Your task to perform on an android device: turn off picture-in-picture Image 0: 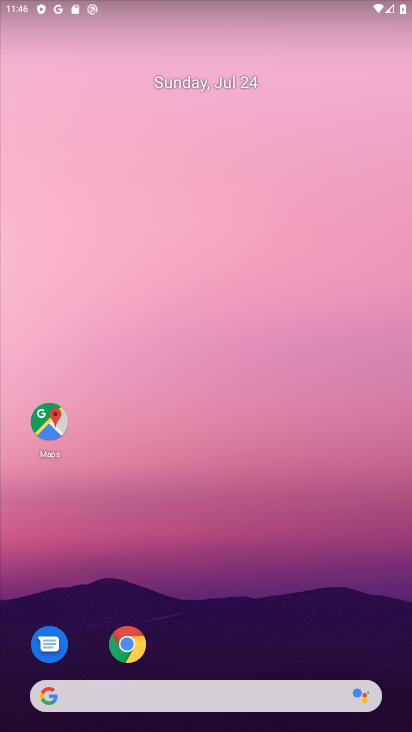
Step 0: click (123, 630)
Your task to perform on an android device: turn off picture-in-picture Image 1: 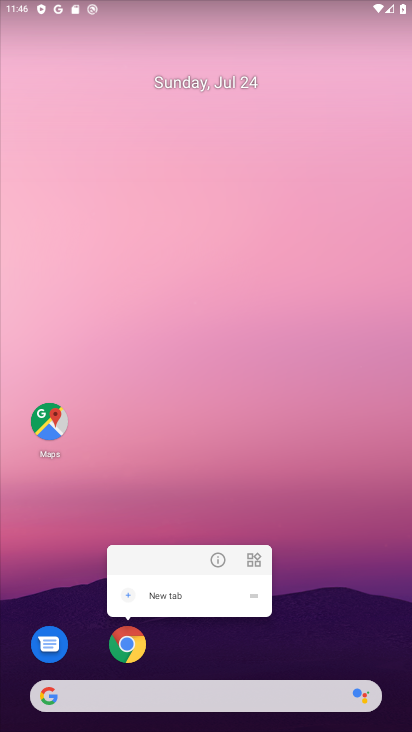
Step 1: click (130, 644)
Your task to perform on an android device: turn off picture-in-picture Image 2: 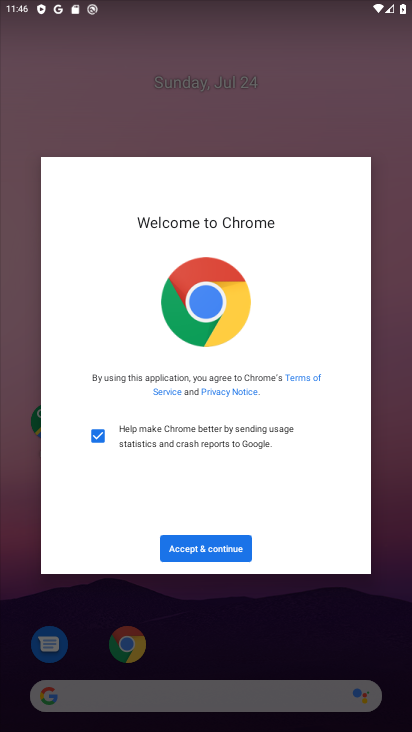
Step 2: click (131, 646)
Your task to perform on an android device: turn off picture-in-picture Image 3: 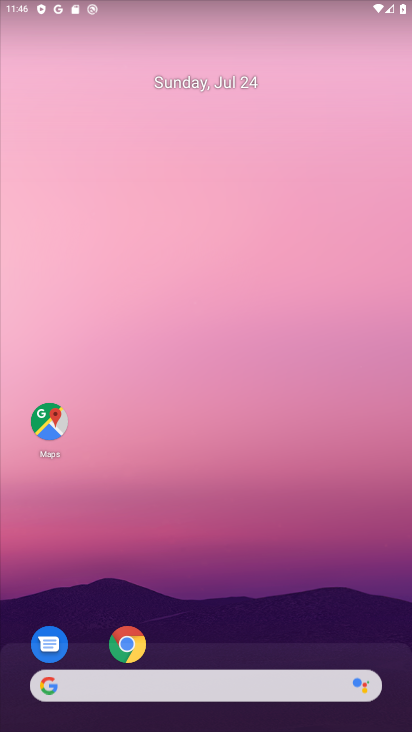
Step 3: click (131, 646)
Your task to perform on an android device: turn off picture-in-picture Image 4: 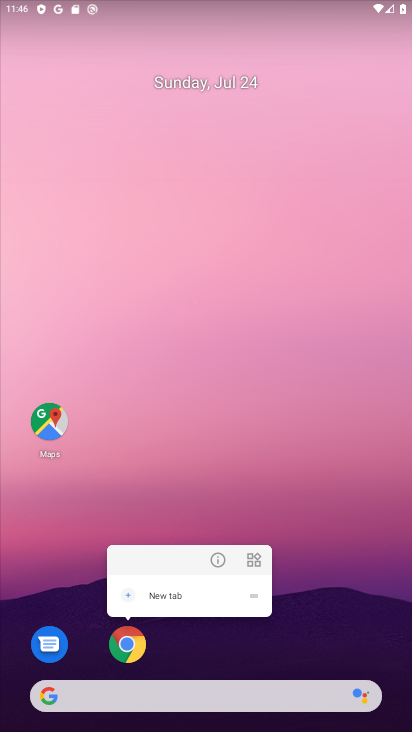
Step 4: click (213, 561)
Your task to perform on an android device: turn off picture-in-picture Image 5: 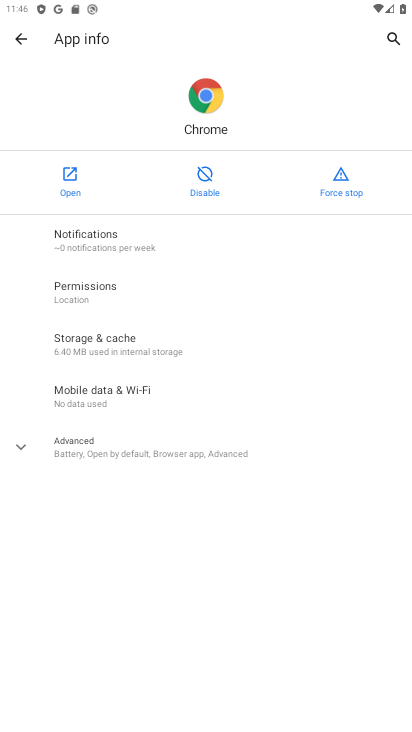
Step 5: click (77, 444)
Your task to perform on an android device: turn off picture-in-picture Image 6: 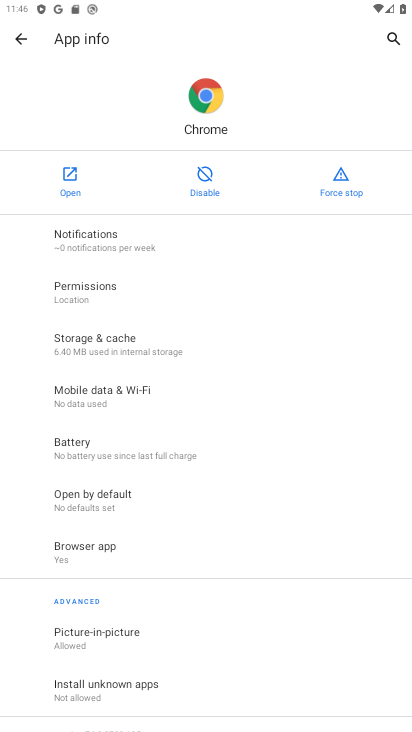
Step 6: click (82, 646)
Your task to perform on an android device: turn off picture-in-picture Image 7: 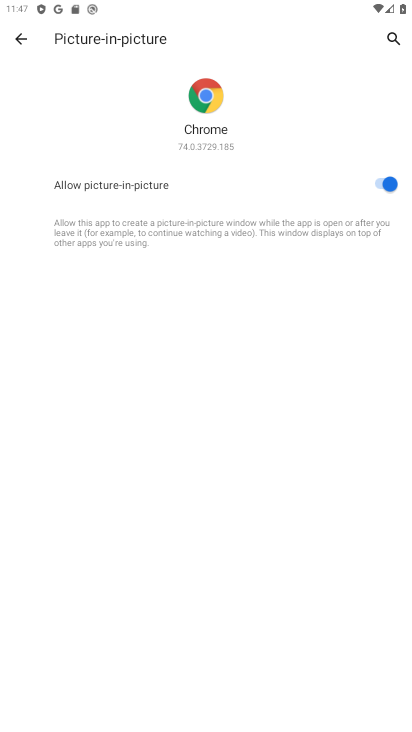
Step 7: click (393, 189)
Your task to perform on an android device: turn off picture-in-picture Image 8: 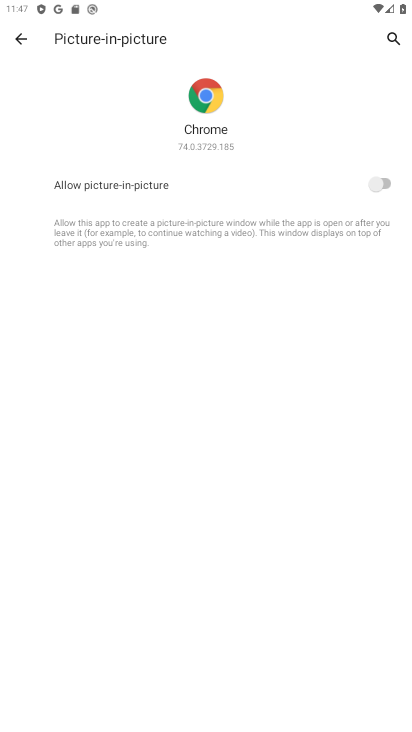
Step 8: task complete